Your task to perform on an android device: What's the weather going to be this weekend? Image 0: 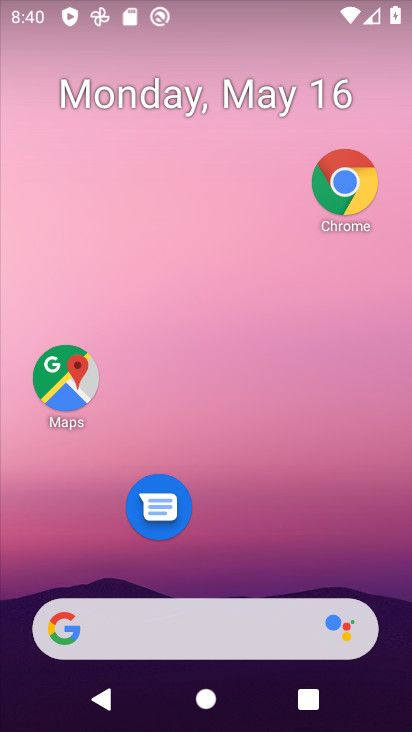
Step 0: click (356, 188)
Your task to perform on an android device: What's the weather going to be this weekend? Image 1: 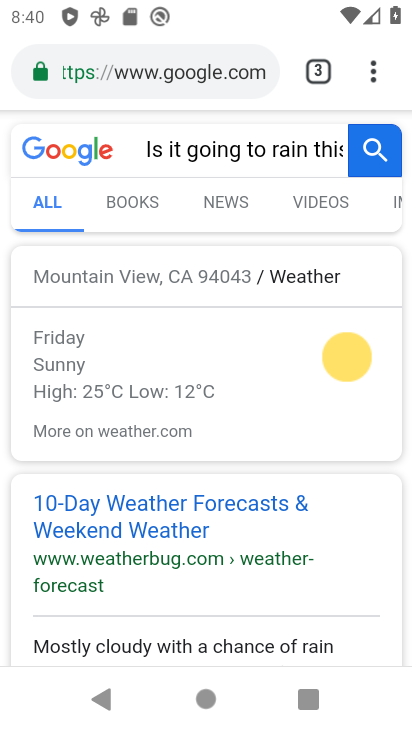
Step 1: click (152, 77)
Your task to perform on an android device: What's the weather going to be this weekend? Image 2: 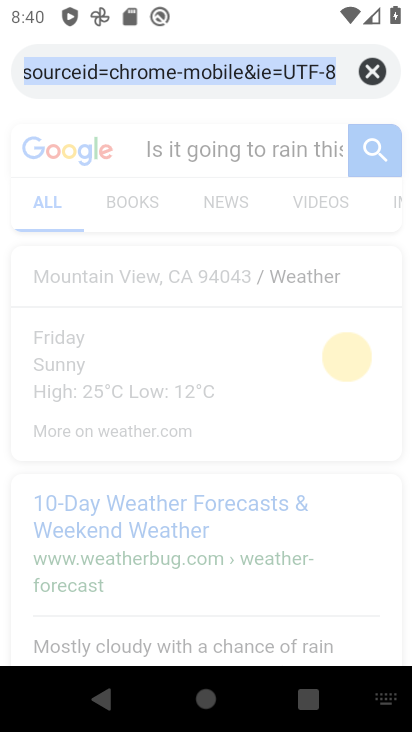
Step 2: click (374, 72)
Your task to perform on an android device: What's the weather going to be this weekend? Image 3: 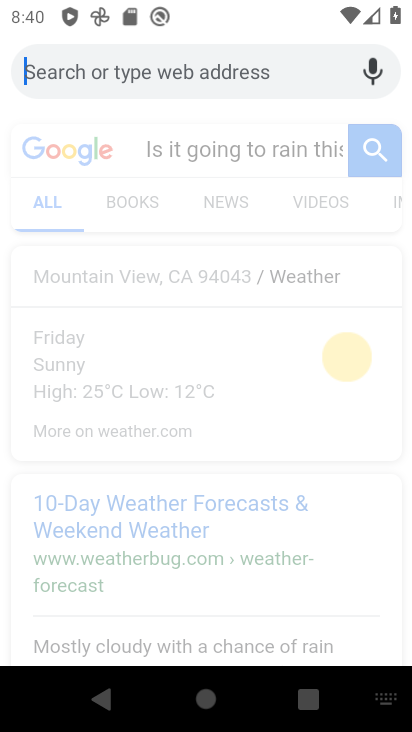
Step 3: type "What's the weather going to be this weekend?"
Your task to perform on an android device: What's the weather going to be this weekend? Image 4: 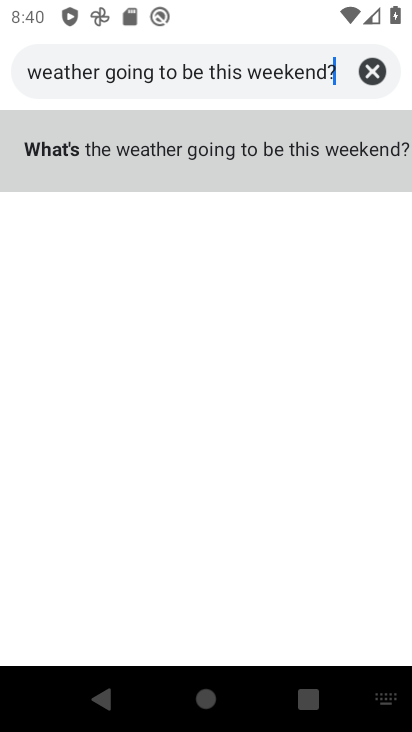
Step 4: click (299, 139)
Your task to perform on an android device: What's the weather going to be this weekend? Image 5: 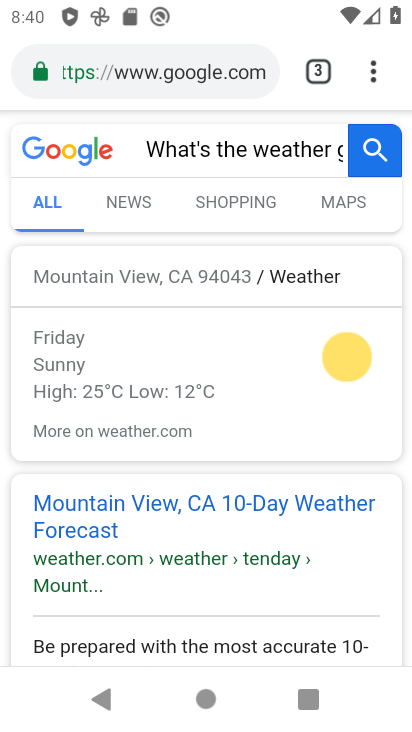
Step 5: task complete